Your task to perform on an android device: Go to calendar. Show me events next week Image 0: 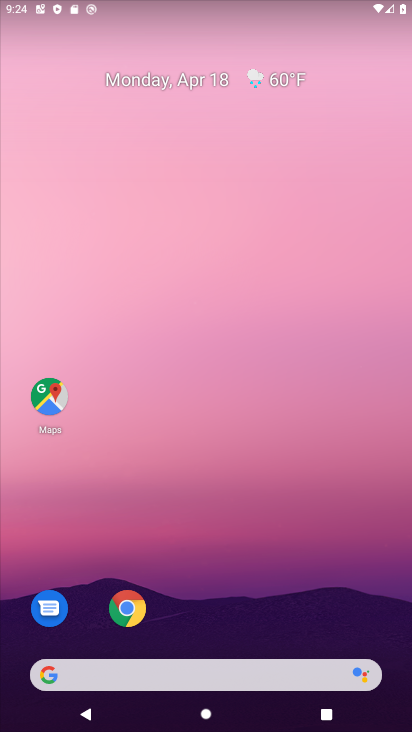
Step 0: drag from (228, 503) to (287, 59)
Your task to perform on an android device: Go to calendar. Show me events next week Image 1: 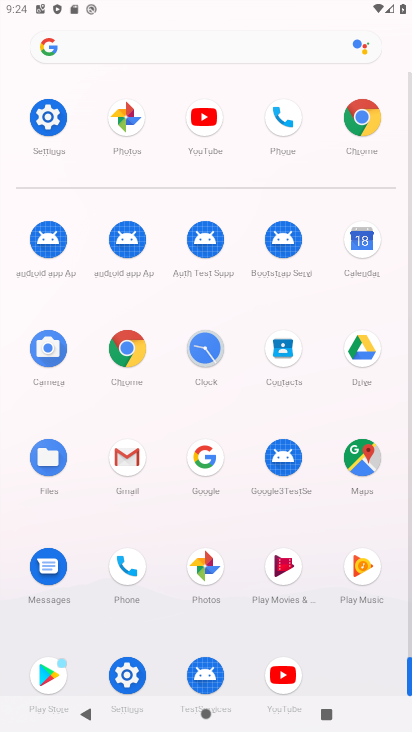
Step 1: click (359, 239)
Your task to perform on an android device: Go to calendar. Show me events next week Image 2: 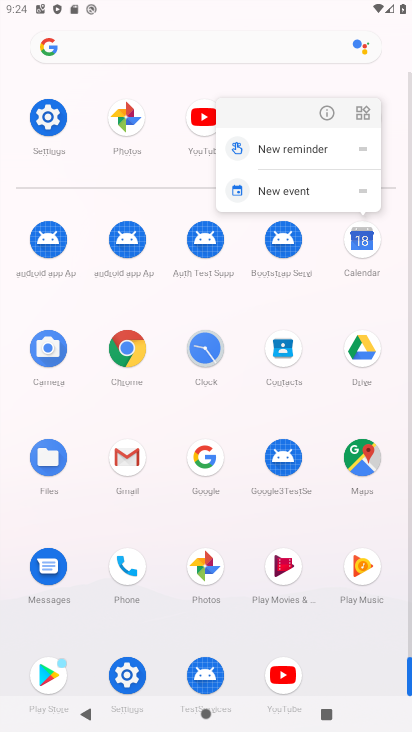
Step 2: click (330, 110)
Your task to perform on an android device: Go to calendar. Show me events next week Image 3: 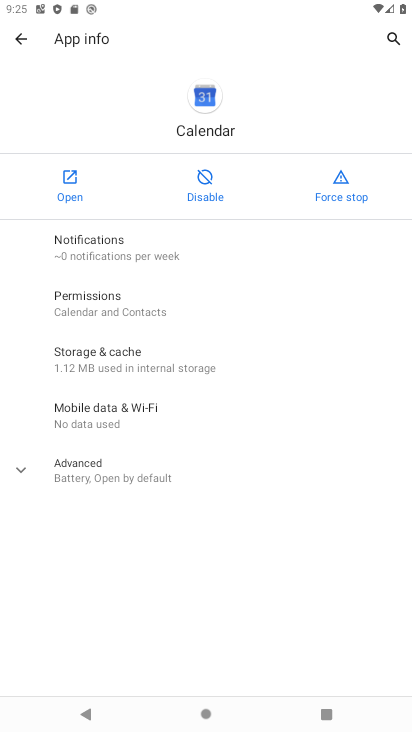
Step 3: click (57, 183)
Your task to perform on an android device: Go to calendar. Show me events next week Image 4: 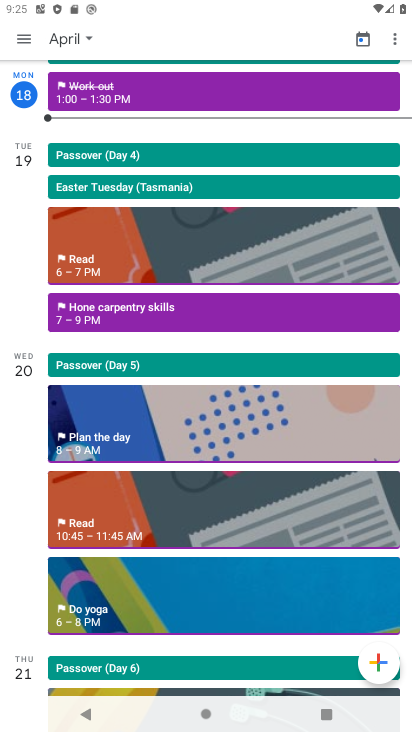
Step 4: click (28, 46)
Your task to perform on an android device: Go to calendar. Show me events next week Image 5: 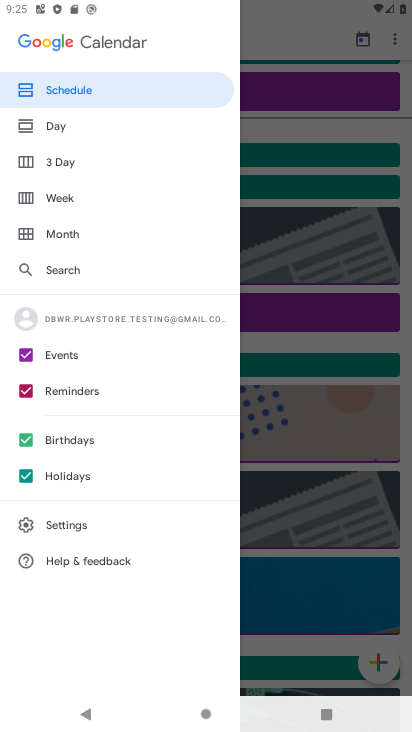
Step 5: click (41, 194)
Your task to perform on an android device: Go to calendar. Show me events next week Image 6: 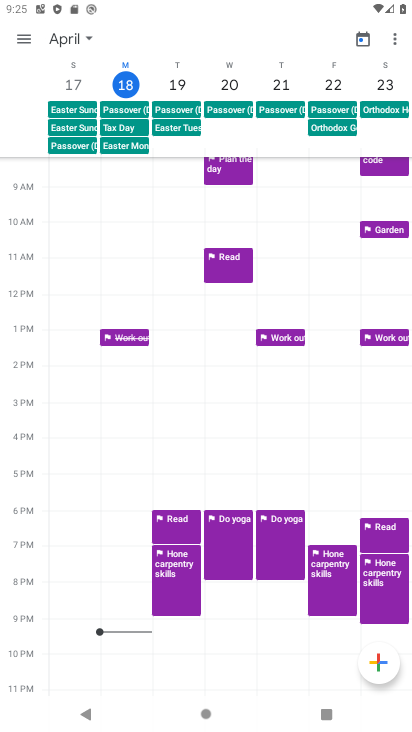
Step 6: drag from (311, 551) to (115, 407)
Your task to perform on an android device: Go to calendar. Show me events next week Image 7: 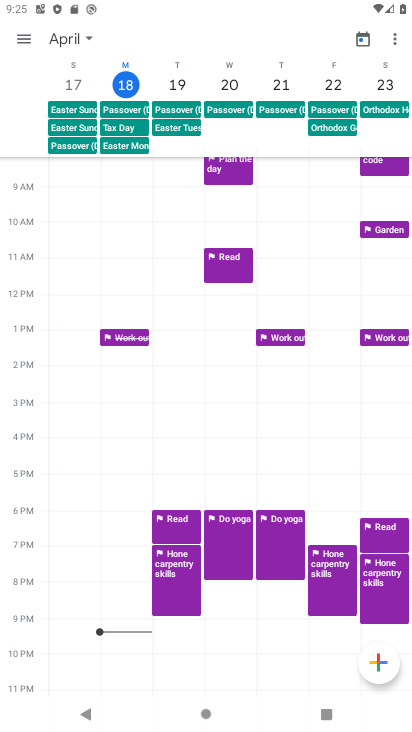
Step 7: click (25, 35)
Your task to perform on an android device: Go to calendar. Show me events next week Image 8: 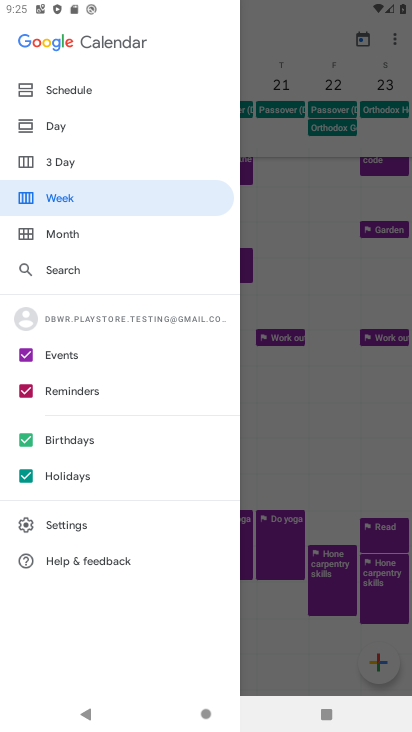
Step 8: click (79, 193)
Your task to perform on an android device: Go to calendar. Show me events next week Image 9: 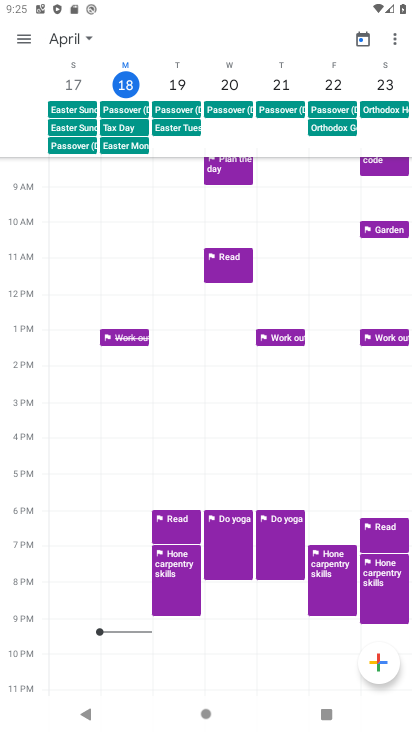
Step 9: task complete